Your task to perform on an android device: delete location history Image 0: 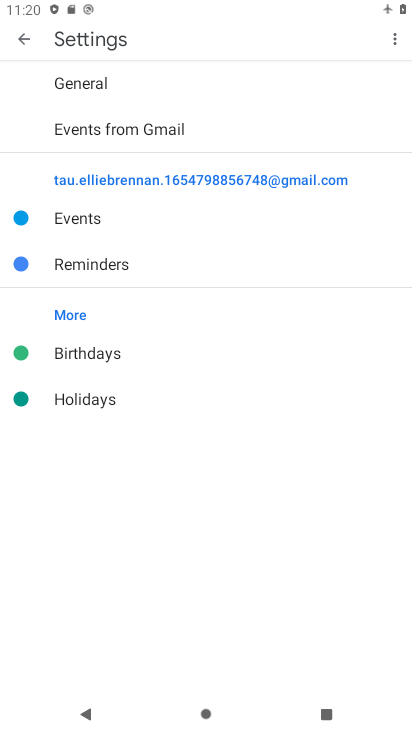
Step 0: press home button
Your task to perform on an android device: delete location history Image 1: 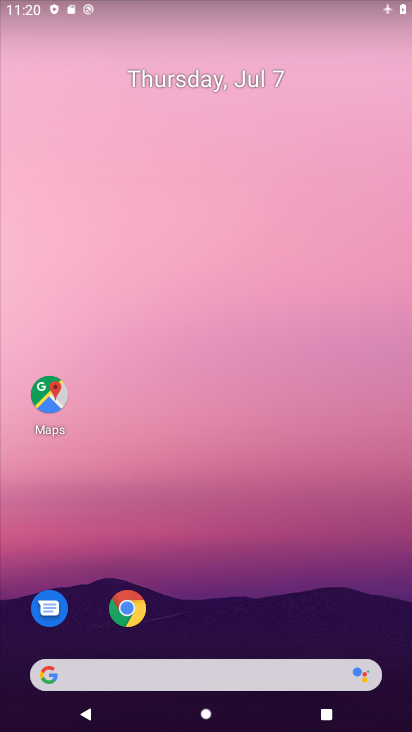
Step 1: drag from (190, 624) to (244, 0)
Your task to perform on an android device: delete location history Image 2: 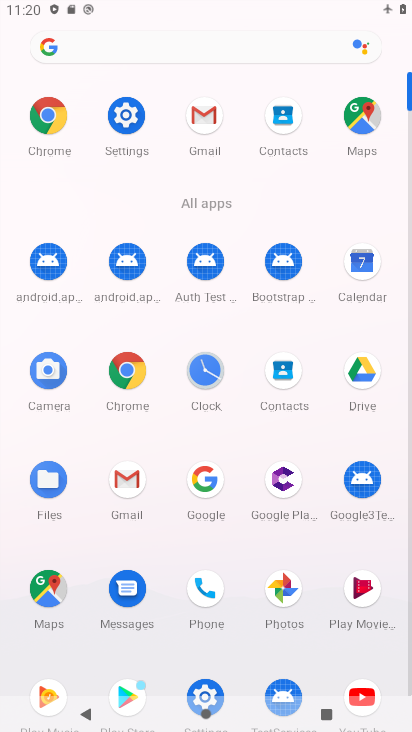
Step 2: click (48, 593)
Your task to perform on an android device: delete location history Image 3: 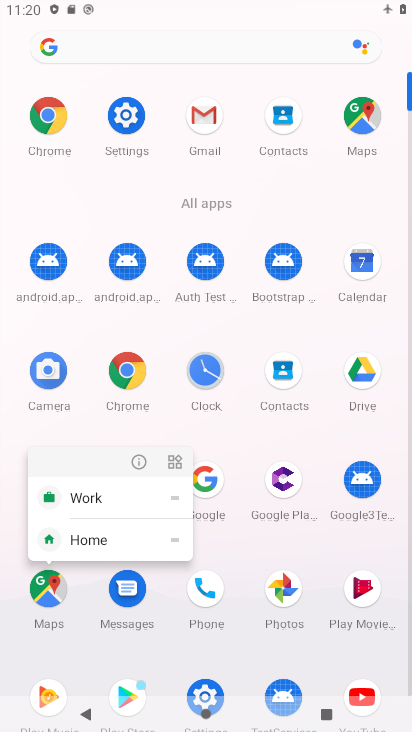
Step 3: click (48, 593)
Your task to perform on an android device: delete location history Image 4: 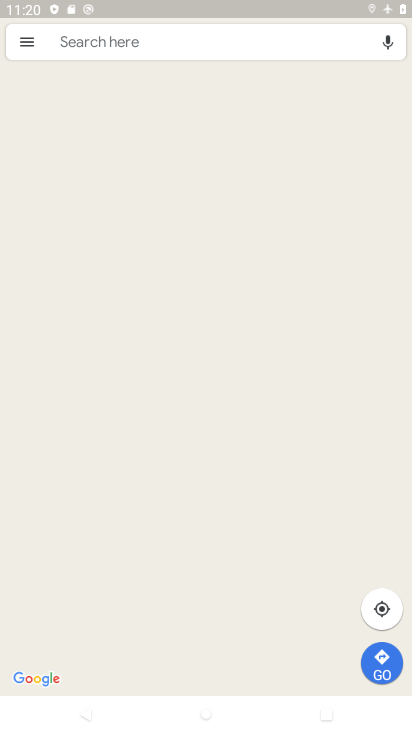
Step 4: click (21, 46)
Your task to perform on an android device: delete location history Image 5: 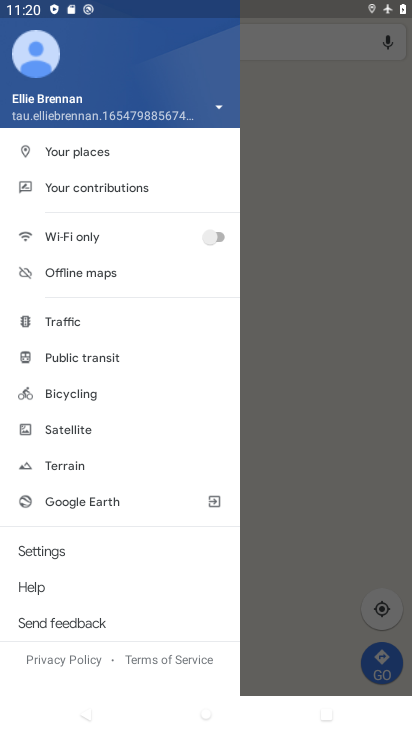
Step 5: click (96, 189)
Your task to perform on an android device: delete location history Image 6: 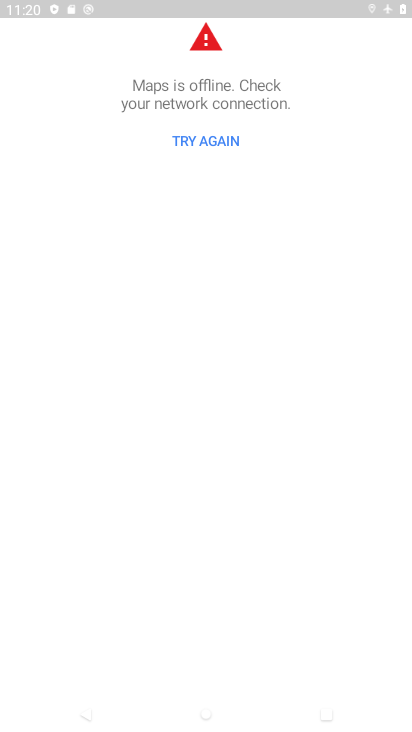
Step 6: task complete